Your task to perform on an android device: Find coffee shops on Maps Image 0: 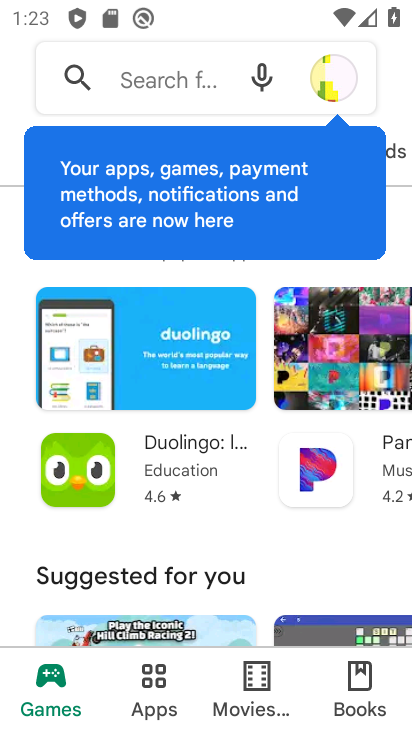
Step 0: press home button
Your task to perform on an android device: Find coffee shops on Maps Image 1: 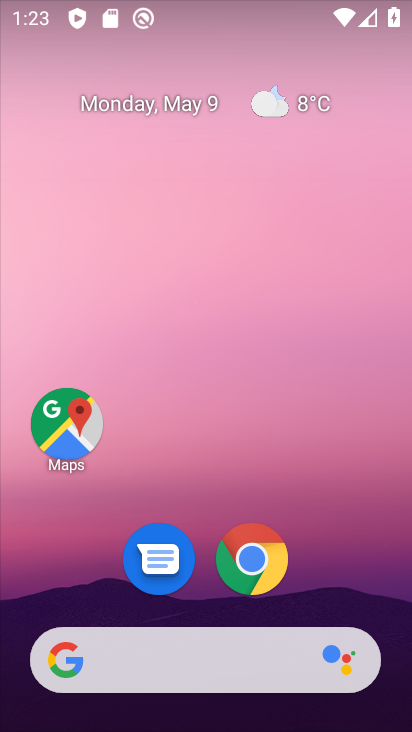
Step 1: click (69, 427)
Your task to perform on an android device: Find coffee shops on Maps Image 2: 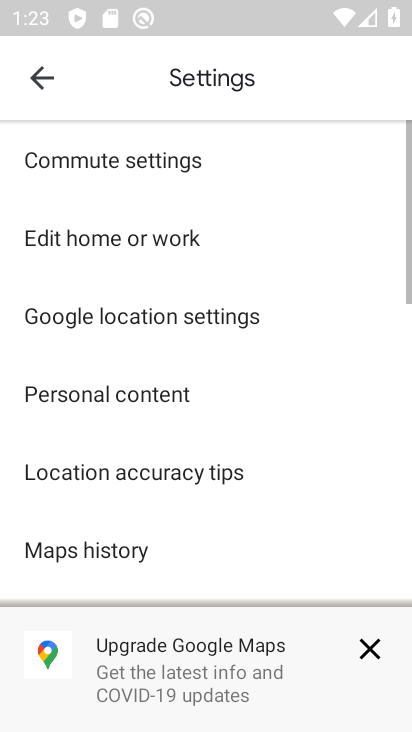
Step 2: click (39, 73)
Your task to perform on an android device: Find coffee shops on Maps Image 3: 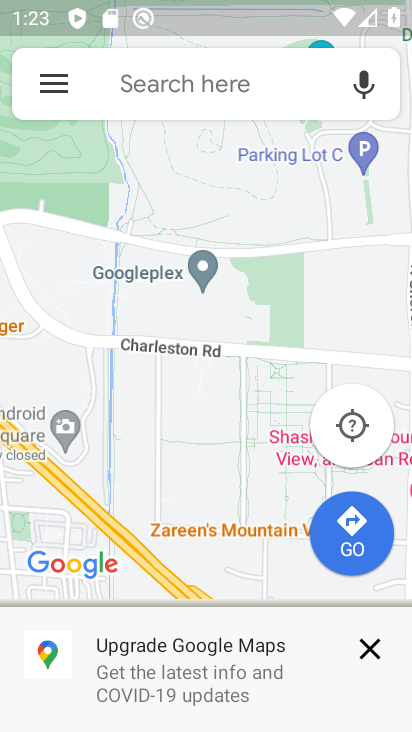
Step 3: click (204, 77)
Your task to perform on an android device: Find coffee shops on Maps Image 4: 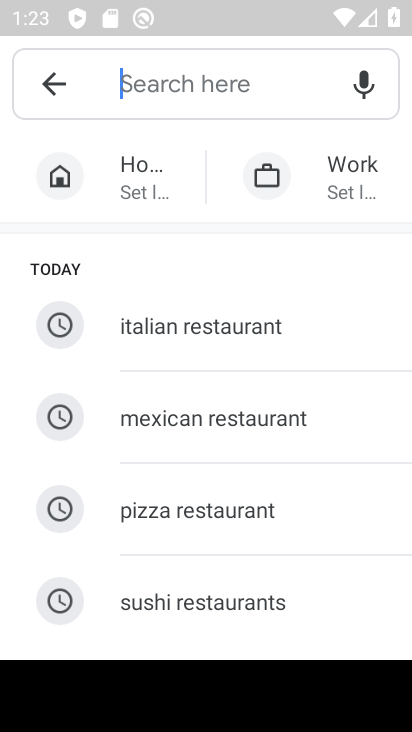
Step 4: type "coffee shops"
Your task to perform on an android device: Find coffee shops on Maps Image 5: 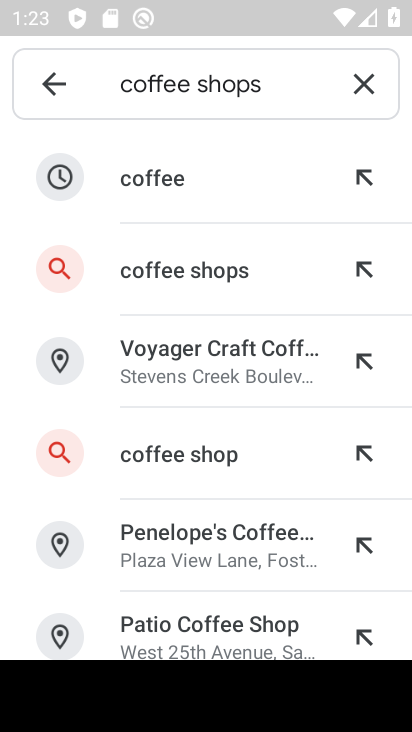
Step 5: click (193, 275)
Your task to perform on an android device: Find coffee shops on Maps Image 6: 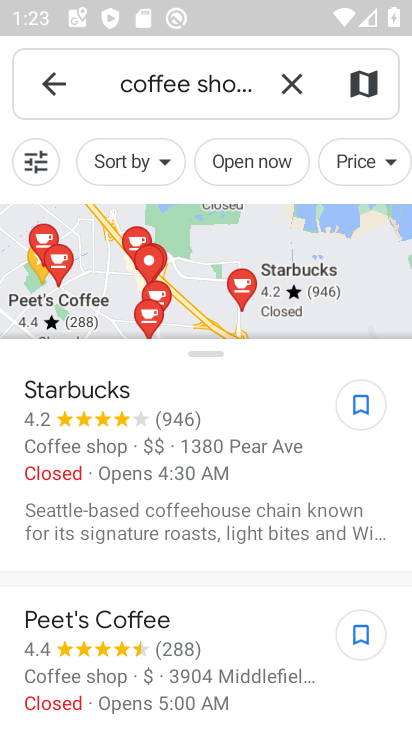
Step 6: task complete